Your task to perform on an android device: Open the Play Movies app and select the watchlist tab. Image 0: 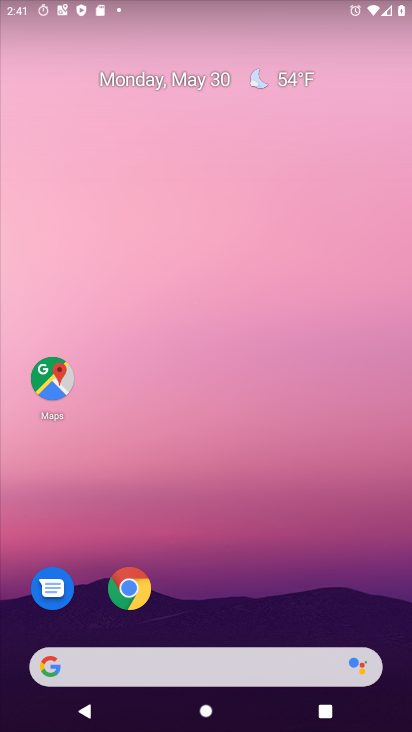
Step 0: drag from (278, 597) to (244, 42)
Your task to perform on an android device: Open the Play Movies app and select the watchlist tab. Image 1: 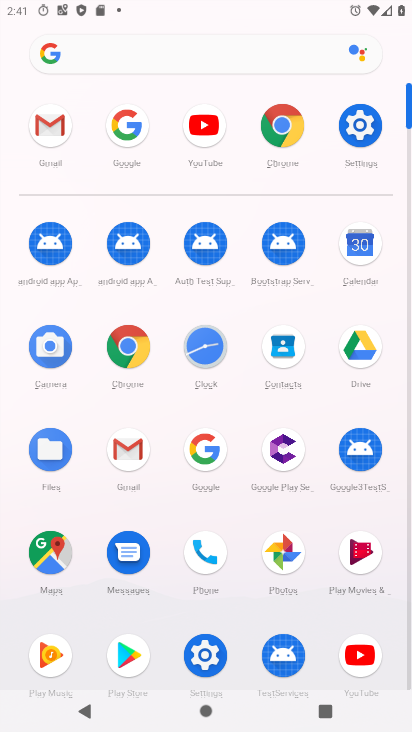
Step 1: drag from (246, 594) to (251, 273)
Your task to perform on an android device: Open the Play Movies app and select the watchlist tab. Image 2: 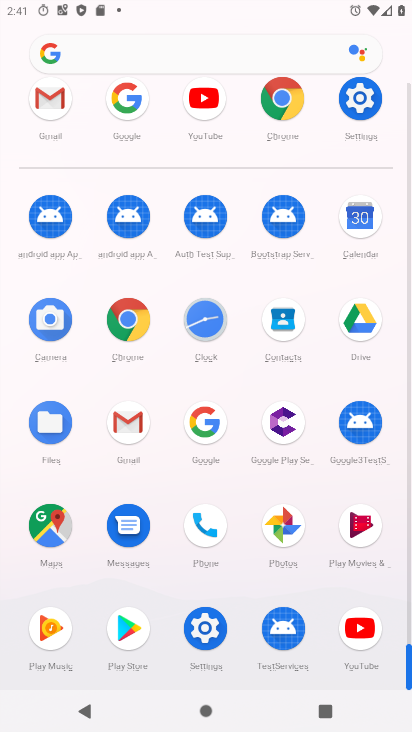
Step 2: drag from (255, 305) to (266, 153)
Your task to perform on an android device: Open the Play Movies app and select the watchlist tab. Image 3: 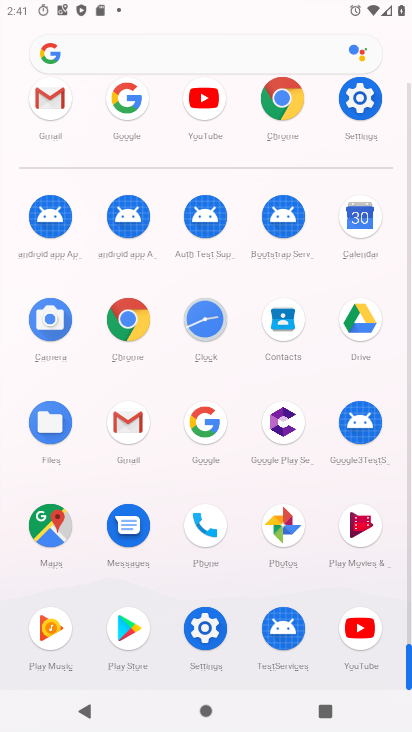
Step 3: click (355, 516)
Your task to perform on an android device: Open the Play Movies app and select the watchlist tab. Image 4: 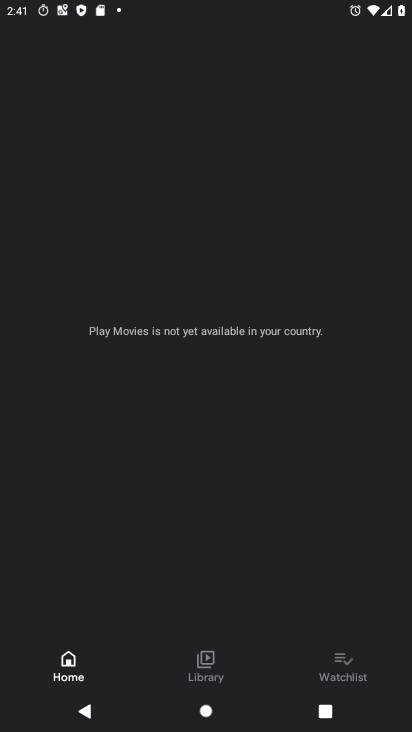
Step 4: click (355, 670)
Your task to perform on an android device: Open the Play Movies app and select the watchlist tab. Image 5: 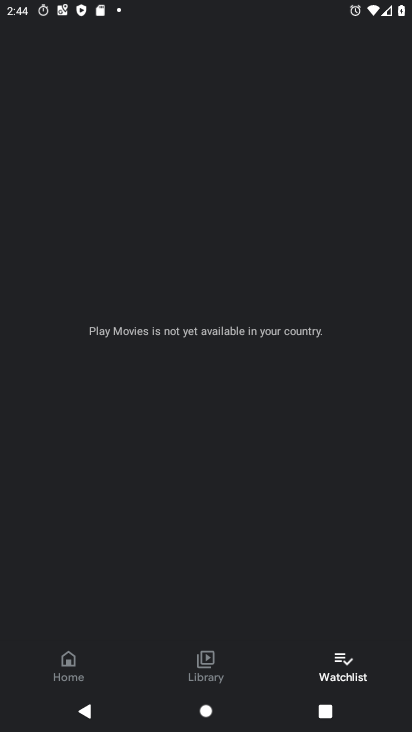
Step 5: task complete